Your task to perform on an android device: change the clock style Image 0: 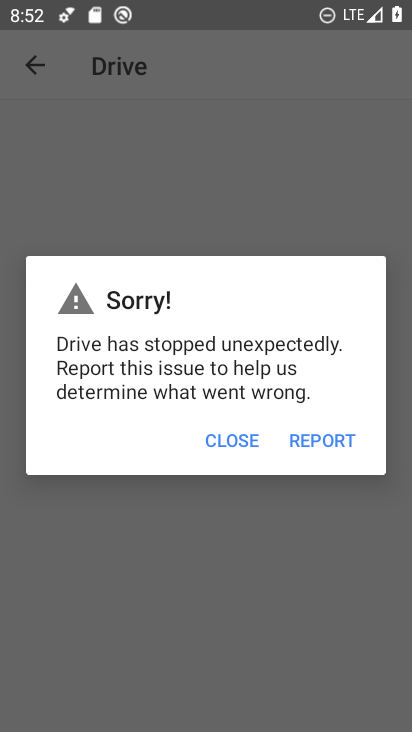
Step 0: press home button
Your task to perform on an android device: change the clock style Image 1: 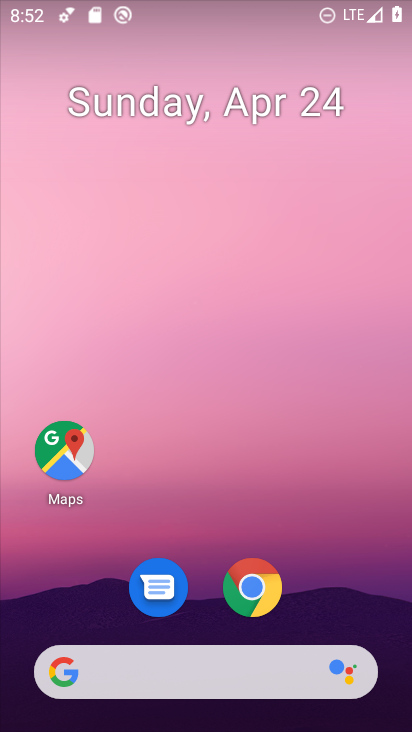
Step 1: drag from (358, 560) to (366, 226)
Your task to perform on an android device: change the clock style Image 2: 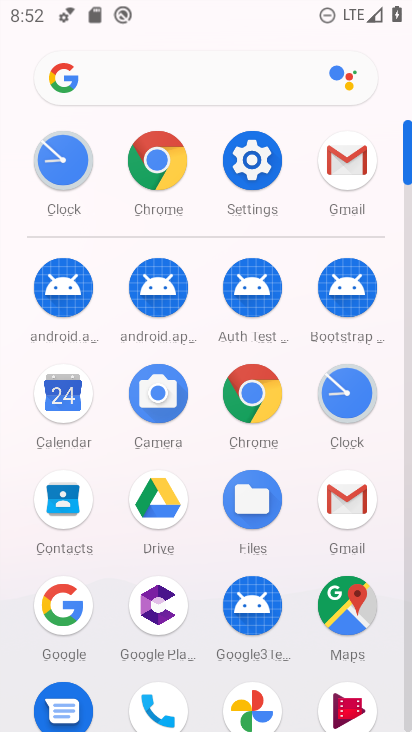
Step 2: click (350, 388)
Your task to perform on an android device: change the clock style Image 3: 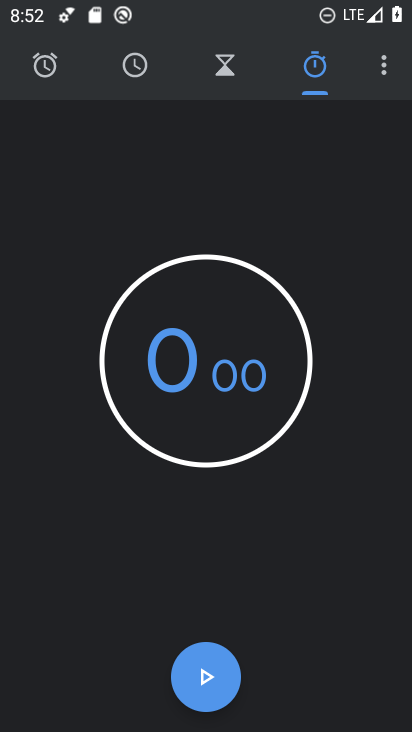
Step 3: click (399, 75)
Your task to perform on an android device: change the clock style Image 4: 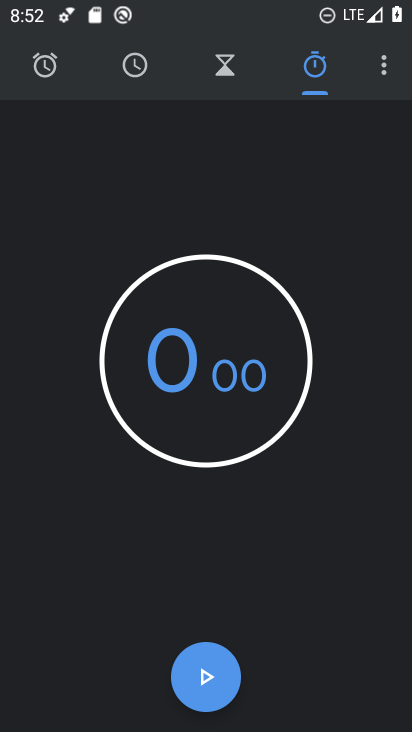
Step 4: click (375, 75)
Your task to perform on an android device: change the clock style Image 5: 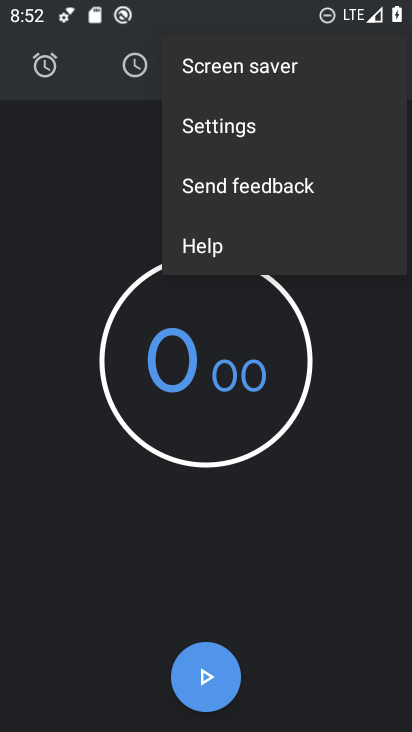
Step 5: click (250, 131)
Your task to perform on an android device: change the clock style Image 6: 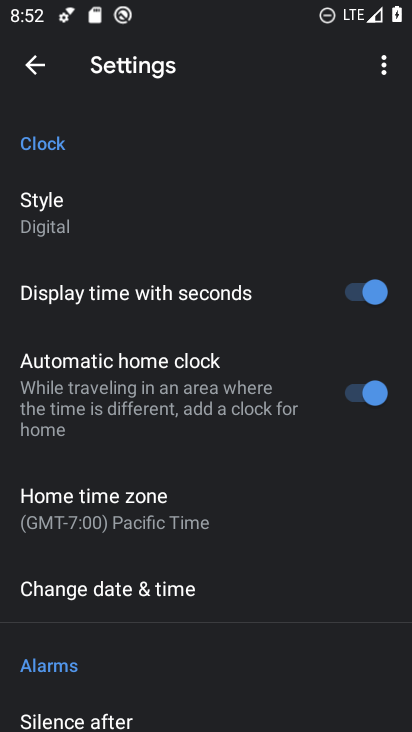
Step 6: click (37, 213)
Your task to perform on an android device: change the clock style Image 7: 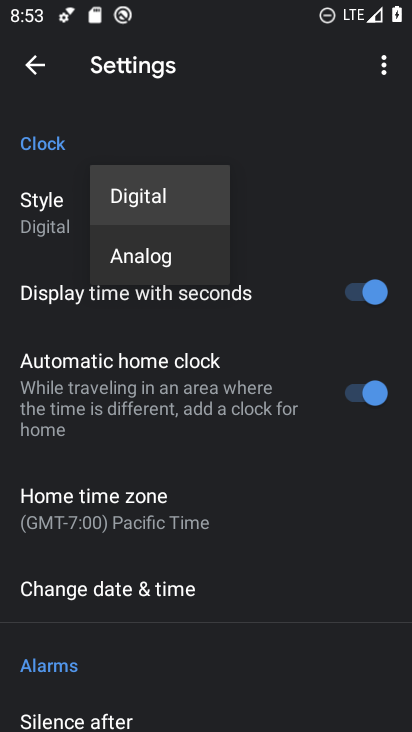
Step 7: click (140, 267)
Your task to perform on an android device: change the clock style Image 8: 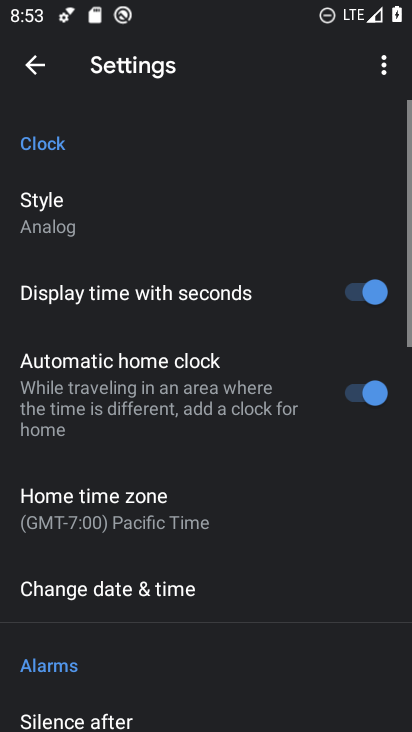
Step 8: task complete